Your task to perform on an android device: create a new album in the google photos Image 0: 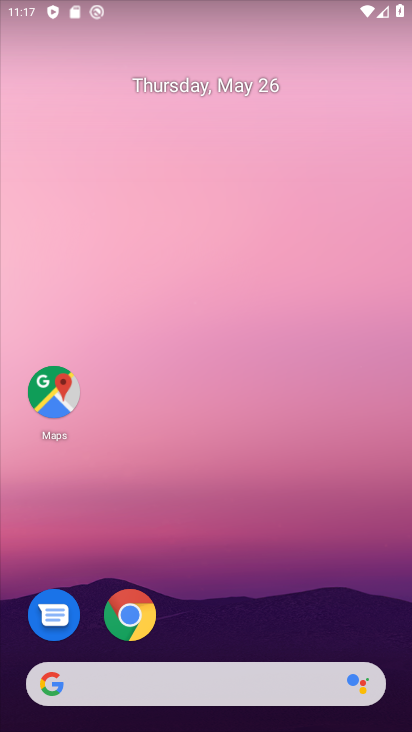
Step 0: drag from (274, 622) to (258, 45)
Your task to perform on an android device: create a new album in the google photos Image 1: 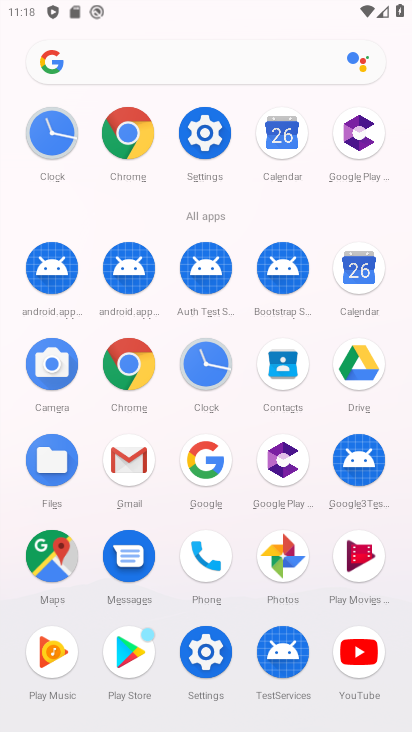
Step 1: click (289, 570)
Your task to perform on an android device: create a new album in the google photos Image 2: 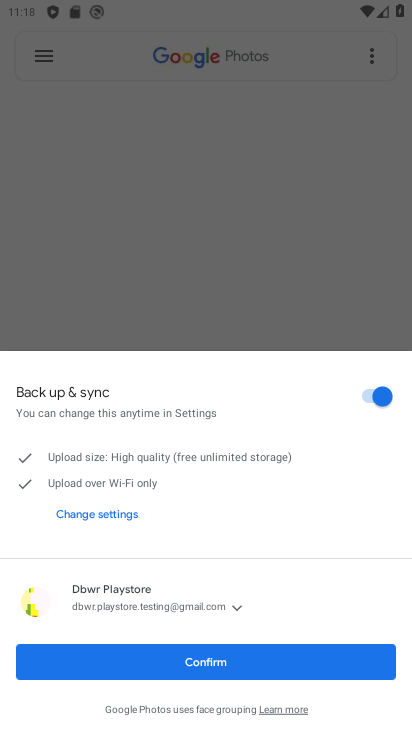
Step 2: click (279, 670)
Your task to perform on an android device: create a new album in the google photos Image 3: 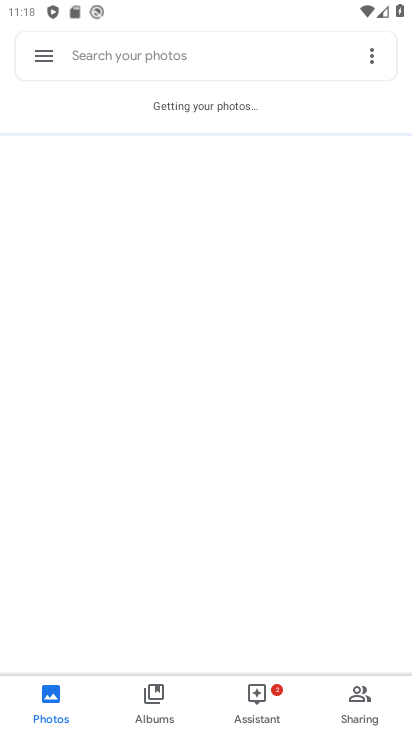
Step 3: click (267, 691)
Your task to perform on an android device: create a new album in the google photos Image 4: 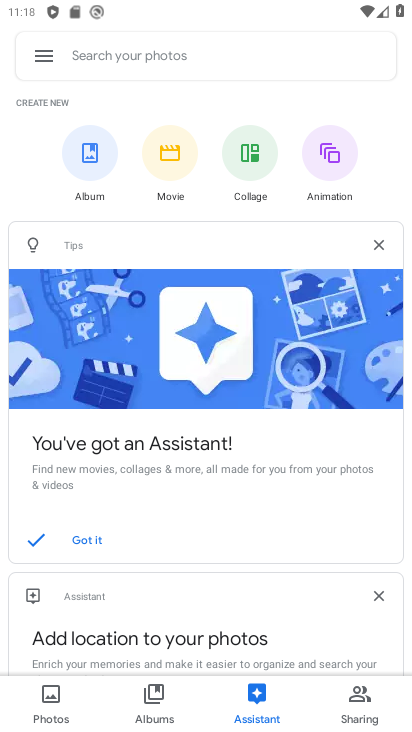
Step 4: click (93, 152)
Your task to perform on an android device: create a new album in the google photos Image 5: 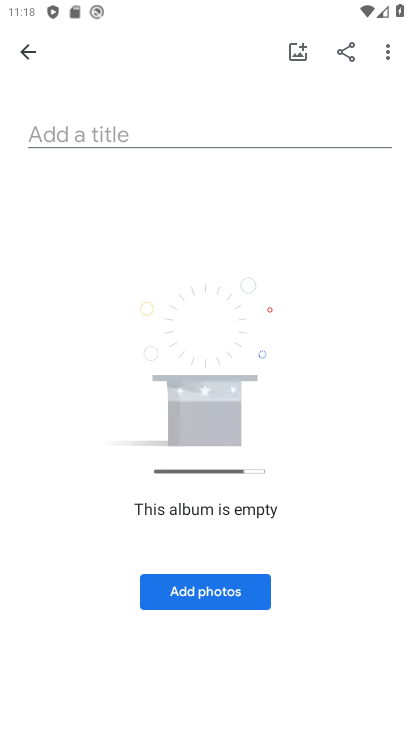
Step 5: click (125, 136)
Your task to perform on an android device: create a new album in the google photos Image 6: 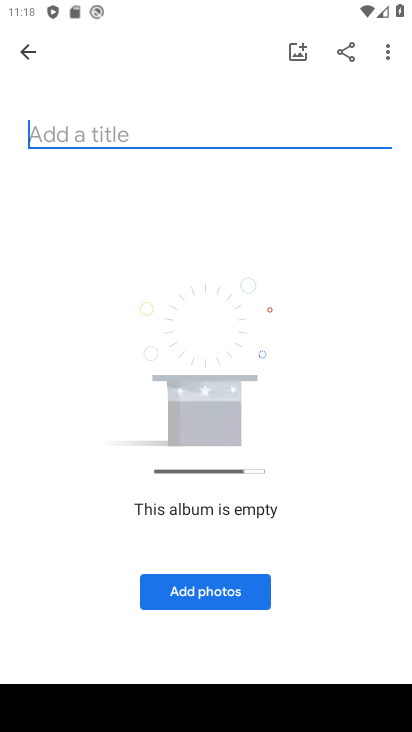
Step 6: type "vjgvjvgjvjgj"
Your task to perform on an android device: create a new album in the google photos Image 7: 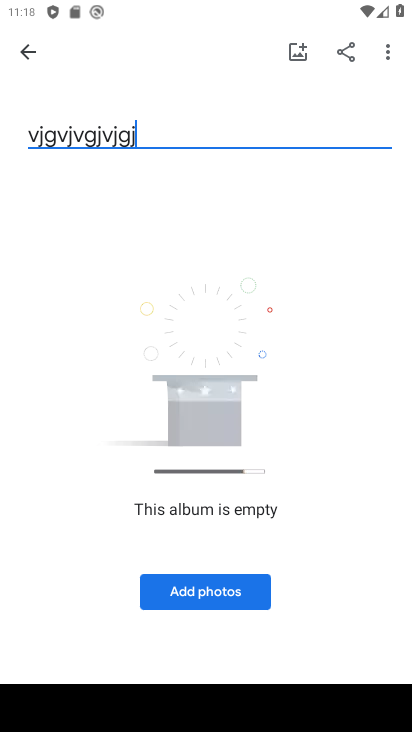
Step 7: click (256, 595)
Your task to perform on an android device: create a new album in the google photos Image 8: 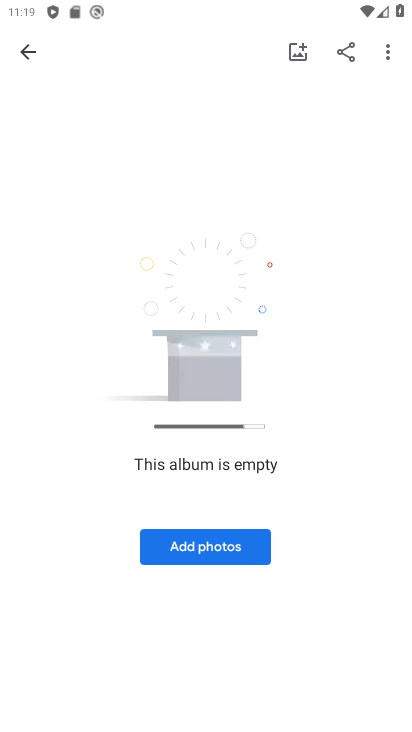
Step 8: click (236, 552)
Your task to perform on an android device: create a new album in the google photos Image 9: 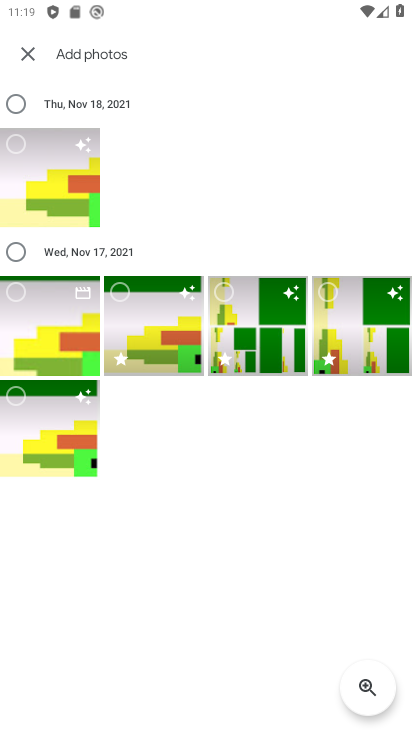
Step 9: click (169, 337)
Your task to perform on an android device: create a new album in the google photos Image 10: 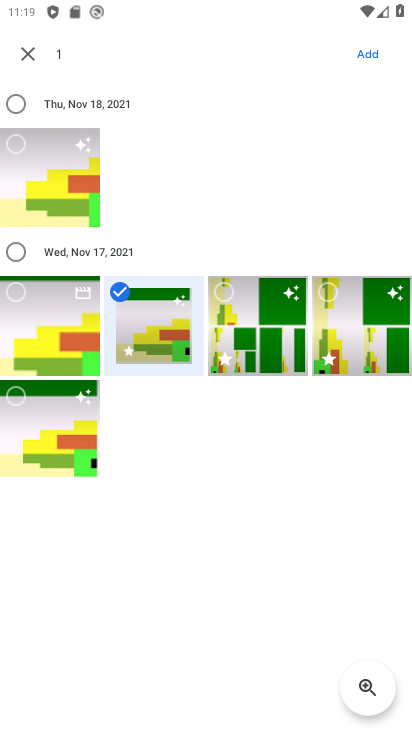
Step 10: click (372, 54)
Your task to perform on an android device: create a new album in the google photos Image 11: 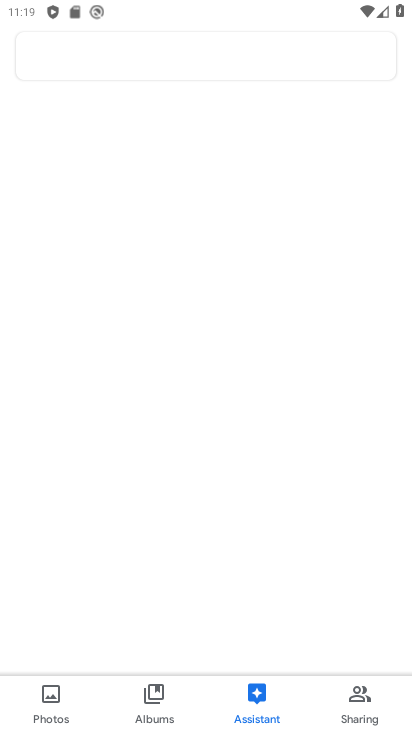
Step 11: task complete